Your task to perform on an android device: Open Google Maps and go to "Timeline" Image 0: 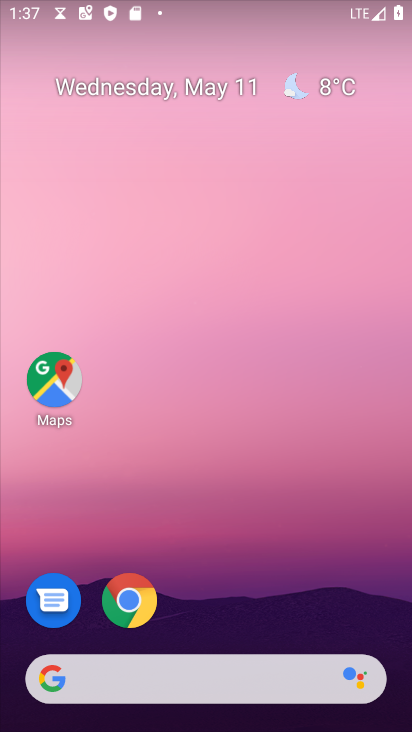
Step 0: click (40, 370)
Your task to perform on an android device: Open Google Maps and go to "Timeline" Image 1: 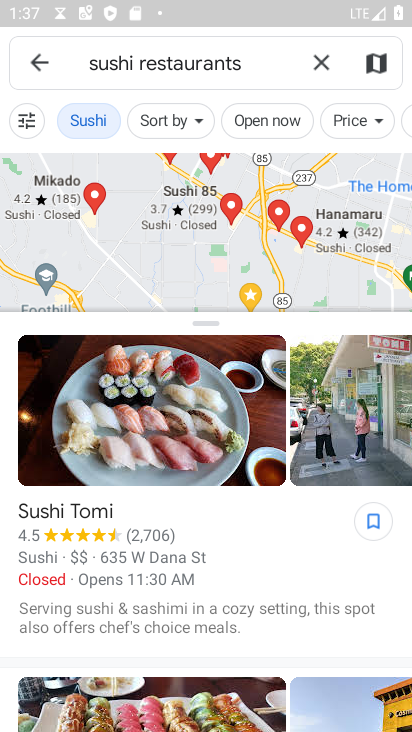
Step 1: click (317, 58)
Your task to perform on an android device: Open Google Maps and go to "Timeline" Image 2: 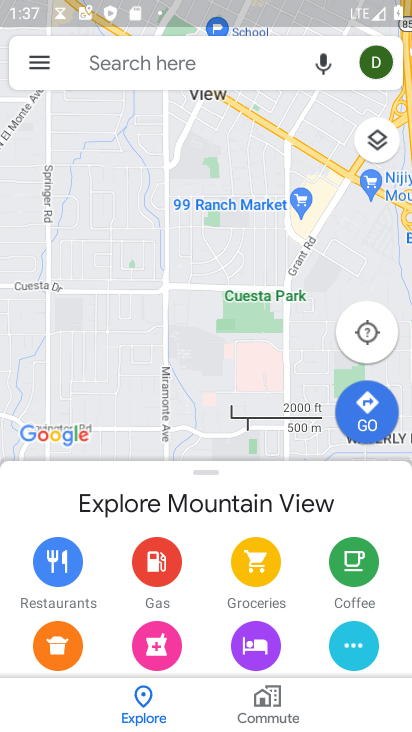
Step 2: click (29, 56)
Your task to perform on an android device: Open Google Maps and go to "Timeline" Image 3: 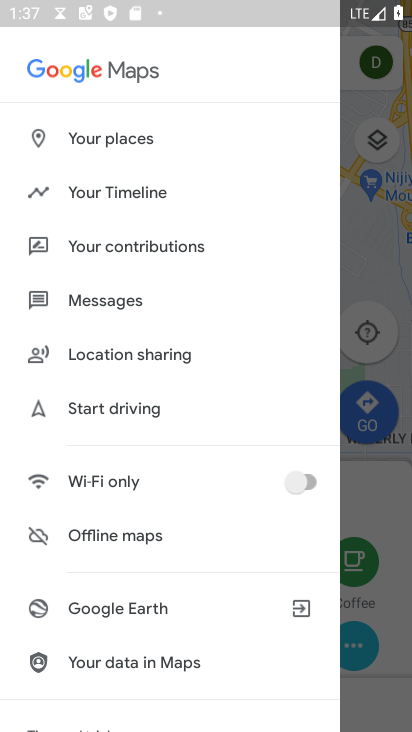
Step 3: click (114, 196)
Your task to perform on an android device: Open Google Maps and go to "Timeline" Image 4: 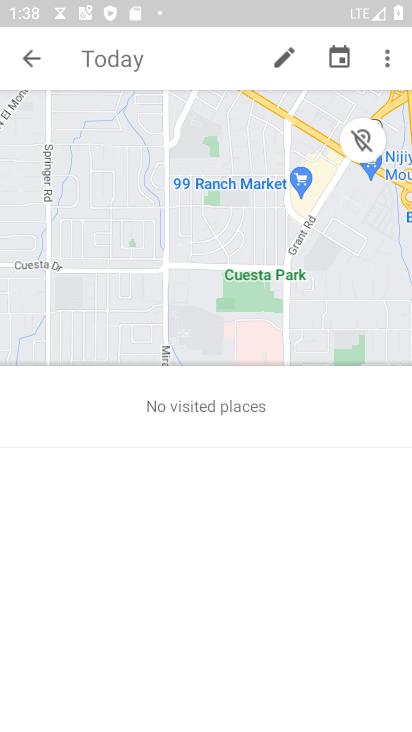
Step 4: task complete